Your task to perform on an android device: Search for sushi restaurants on Maps Image 0: 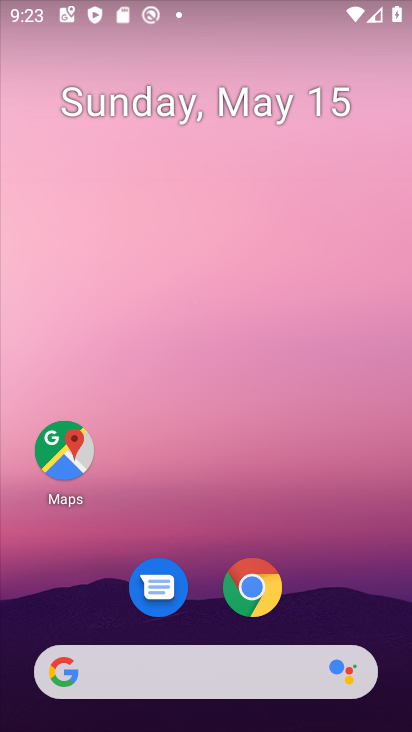
Step 0: drag from (389, 617) to (215, 81)
Your task to perform on an android device: Search for sushi restaurants on Maps Image 1: 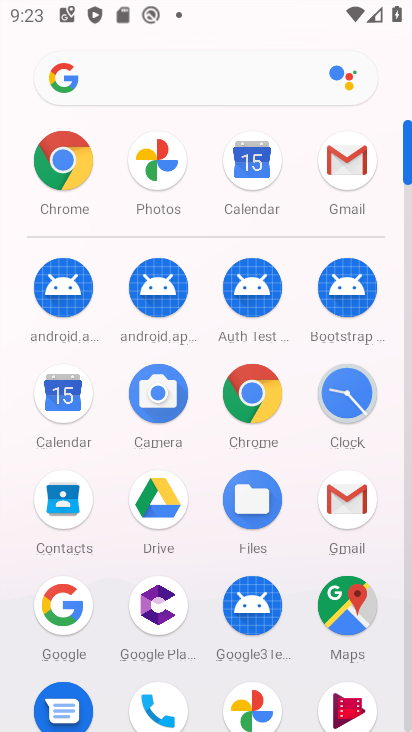
Step 1: click (335, 601)
Your task to perform on an android device: Search for sushi restaurants on Maps Image 2: 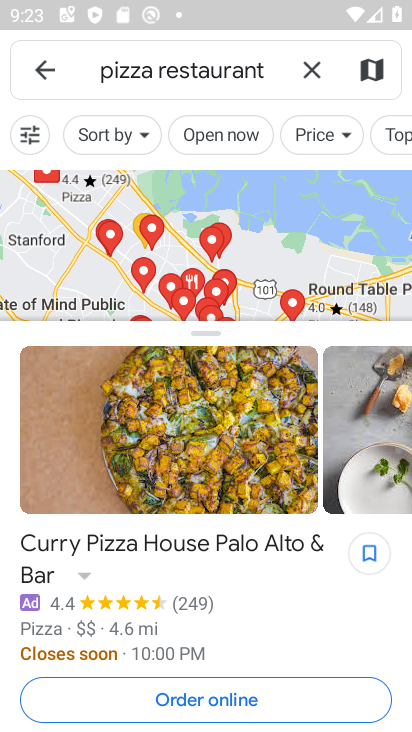
Step 2: click (316, 74)
Your task to perform on an android device: Search for sushi restaurants on Maps Image 3: 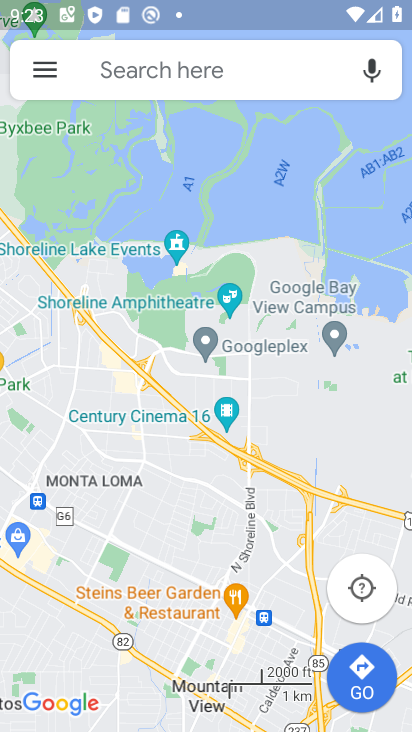
Step 3: click (148, 71)
Your task to perform on an android device: Search for sushi restaurants on Maps Image 4: 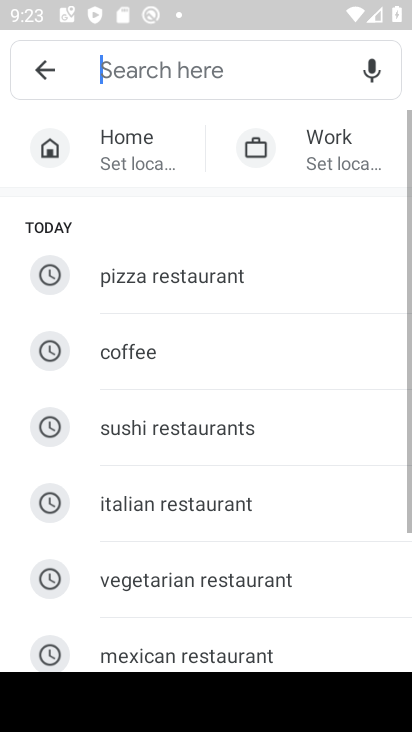
Step 4: click (174, 419)
Your task to perform on an android device: Search for sushi restaurants on Maps Image 5: 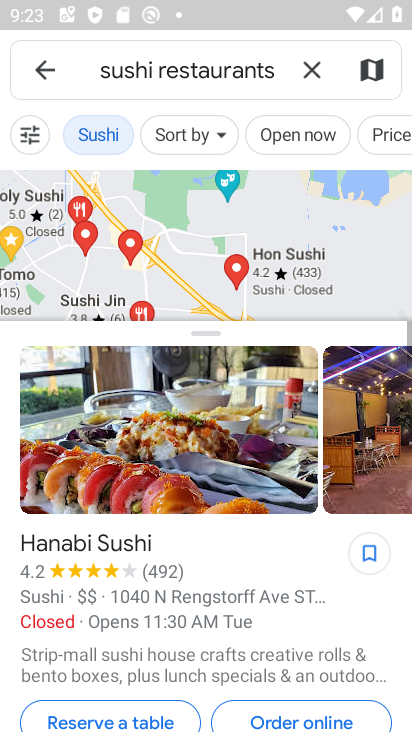
Step 5: task complete